Your task to perform on an android device: Open ESPN.com Image 0: 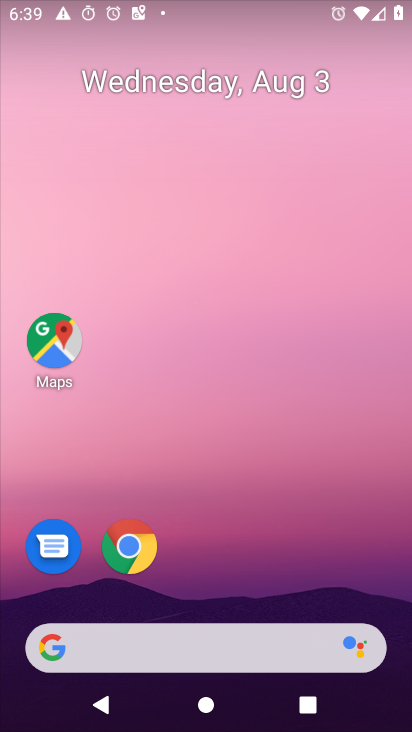
Step 0: press home button
Your task to perform on an android device: Open ESPN.com Image 1: 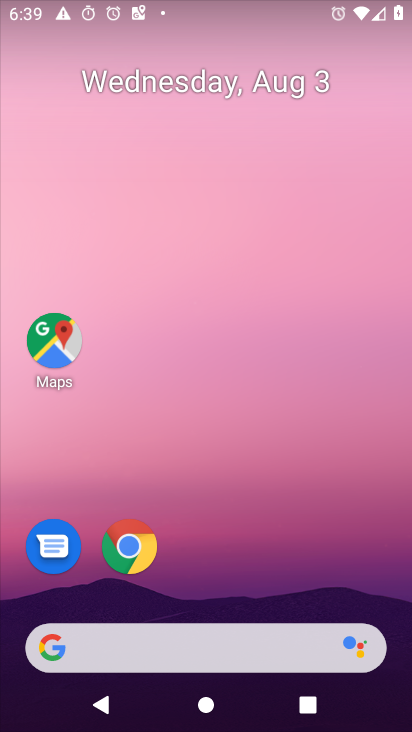
Step 1: click (49, 641)
Your task to perform on an android device: Open ESPN.com Image 2: 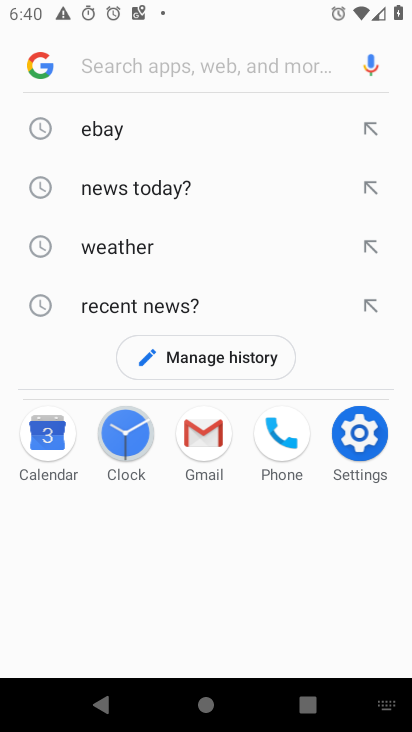
Step 2: press enter
Your task to perform on an android device: Open ESPN.com Image 3: 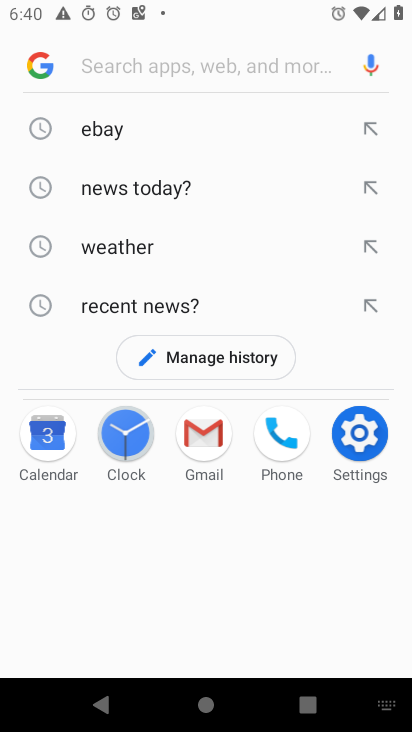
Step 3: type " ESPN.com"
Your task to perform on an android device: Open ESPN.com Image 4: 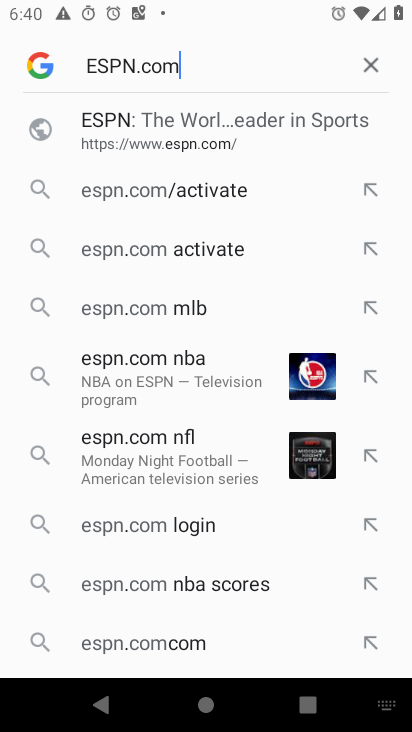
Step 4: click (136, 120)
Your task to perform on an android device: Open ESPN.com Image 5: 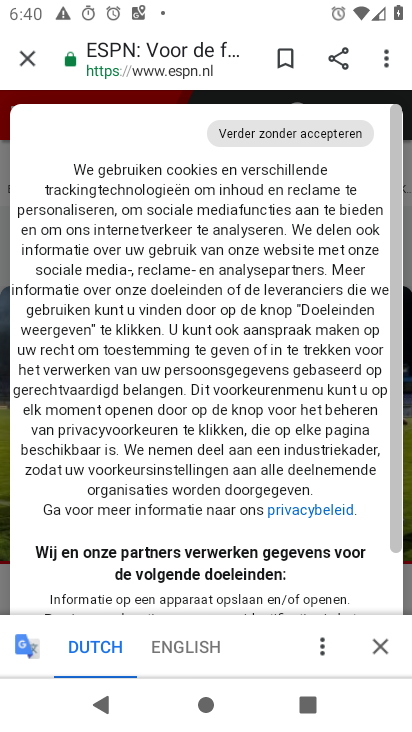
Step 5: click (383, 641)
Your task to perform on an android device: Open ESPN.com Image 6: 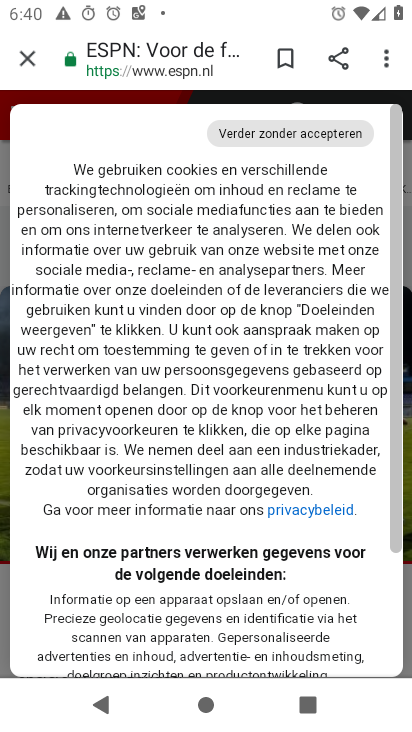
Step 6: task complete